Your task to perform on an android device: Search for pizza restaurants on Maps Image 0: 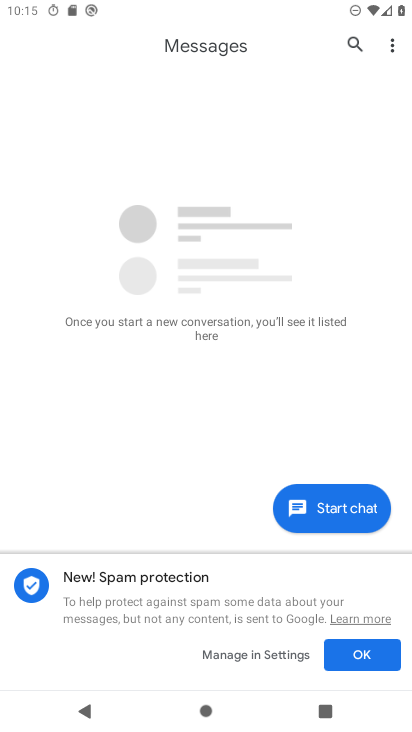
Step 0: press home button
Your task to perform on an android device: Search for pizza restaurants on Maps Image 1: 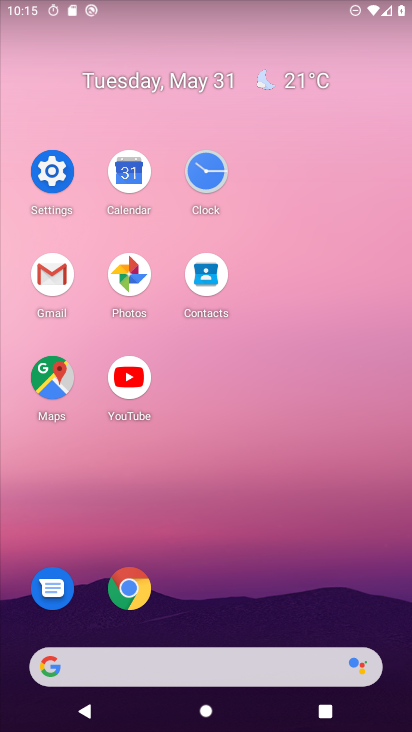
Step 1: click (56, 387)
Your task to perform on an android device: Search for pizza restaurants on Maps Image 2: 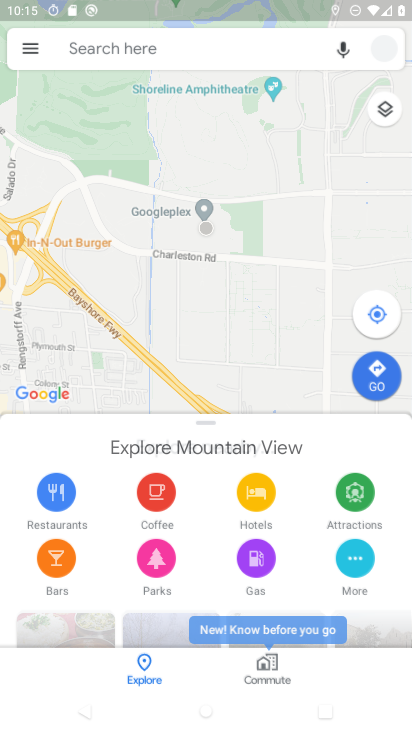
Step 2: click (162, 57)
Your task to perform on an android device: Search for pizza restaurants on Maps Image 3: 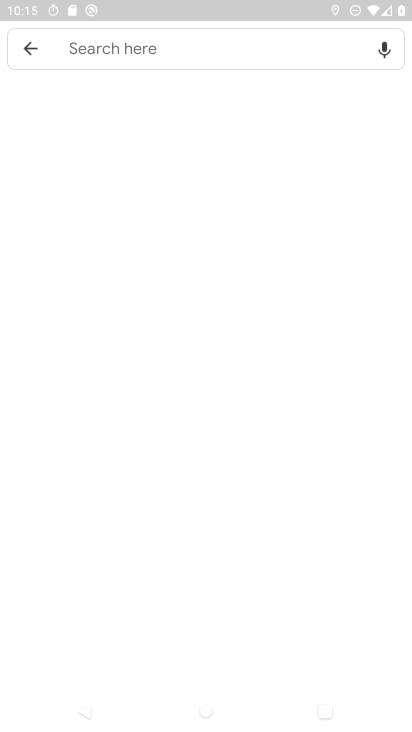
Step 3: click (177, 54)
Your task to perform on an android device: Search for pizza restaurants on Maps Image 4: 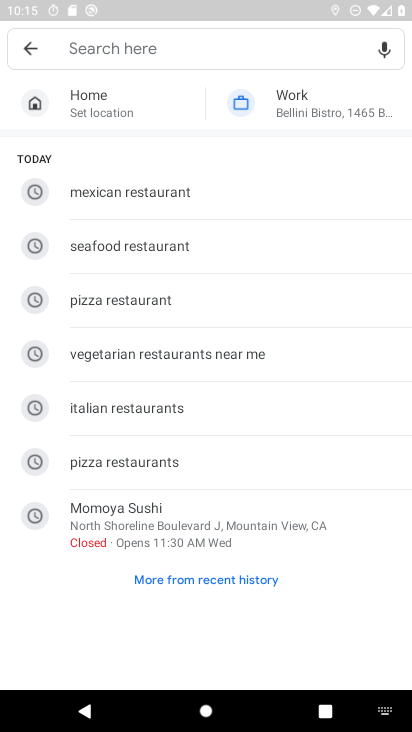
Step 4: click (145, 316)
Your task to perform on an android device: Search for pizza restaurants on Maps Image 5: 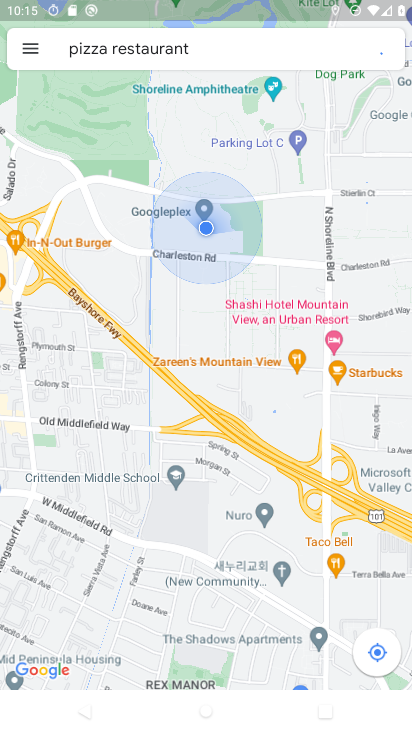
Step 5: task complete